Your task to perform on an android device: turn off notifications in google photos Image 0: 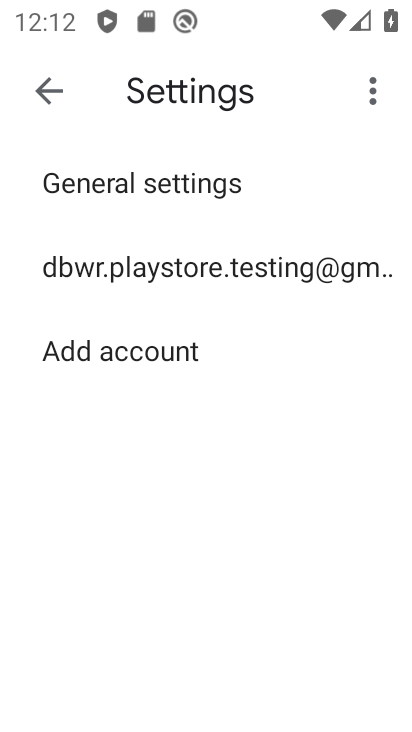
Step 0: press home button
Your task to perform on an android device: turn off notifications in google photos Image 1: 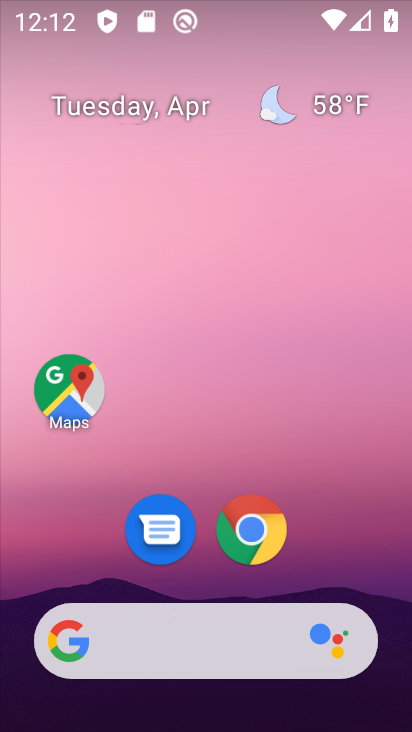
Step 1: drag from (384, 603) to (263, 107)
Your task to perform on an android device: turn off notifications in google photos Image 2: 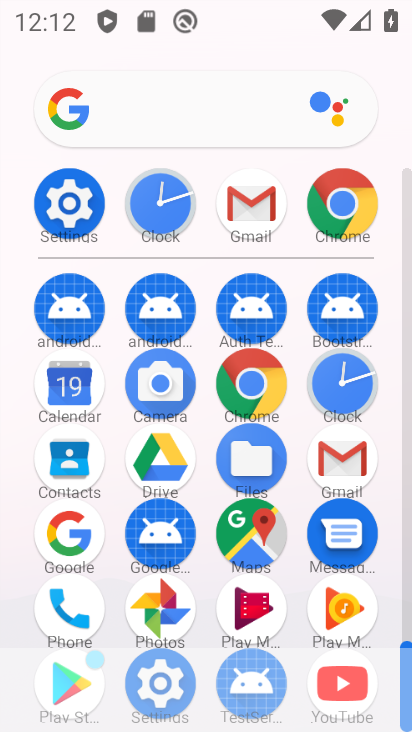
Step 2: click (149, 605)
Your task to perform on an android device: turn off notifications in google photos Image 3: 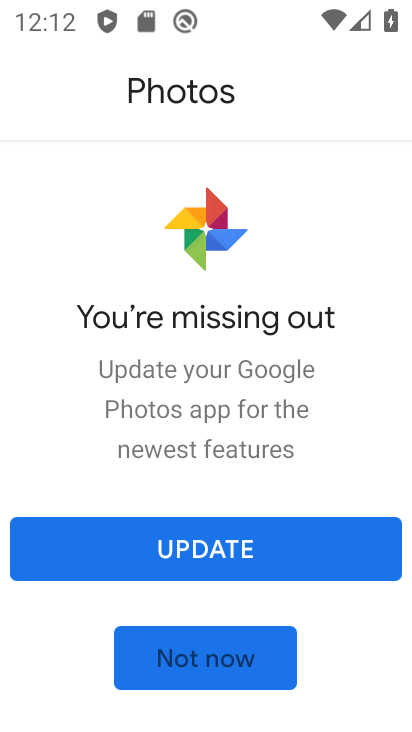
Step 3: click (184, 552)
Your task to perform on an android device: turn off notifications in google photos Image 4: 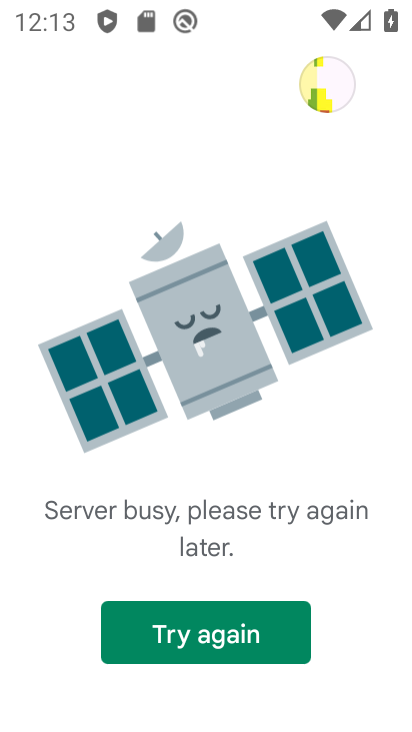
Step 4: task complete